Your task to perform on an android device: Open Google Image 0: 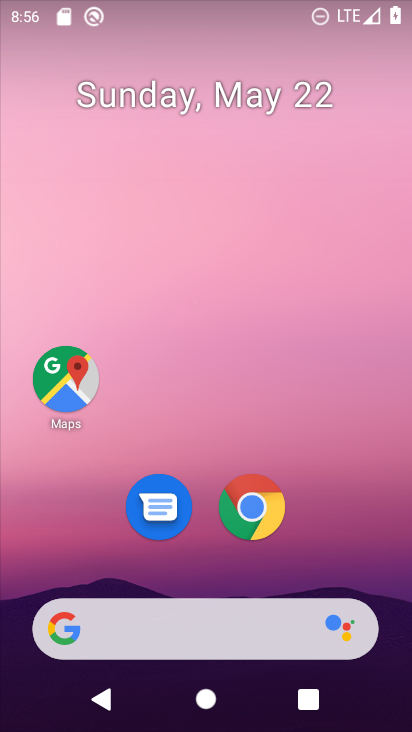
Step 0: drag from (244, 697) to (162, 100)
Your task to perform on an android device: Open Google Image 1: 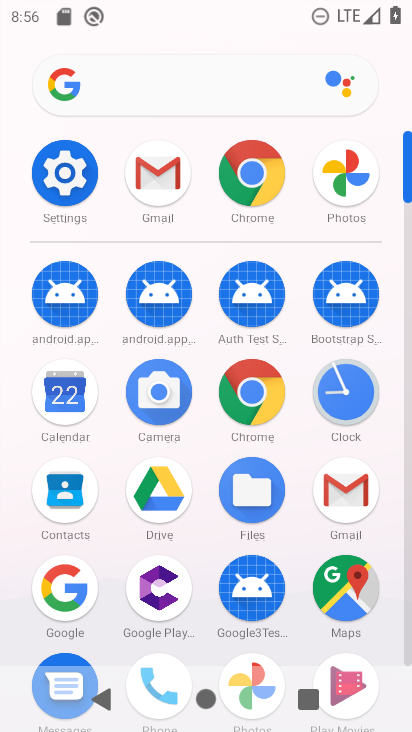
Step 1: click (61, 588)
Your task to perform on an android device: Open Google Image 2: 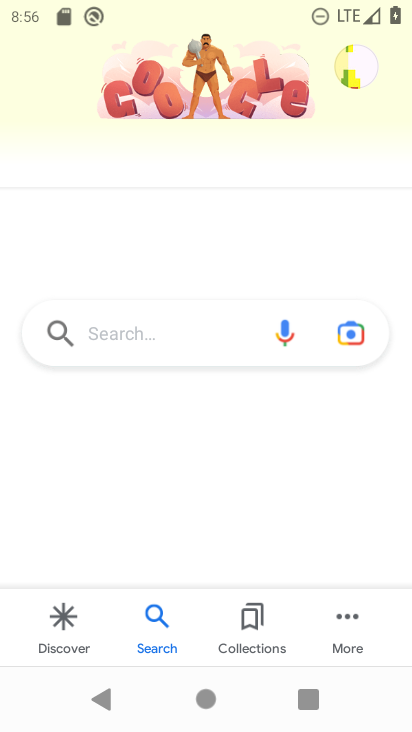
Step 2: task complete